Your task to perform on an android device: choose inbox layout in the gmail app Image 0: 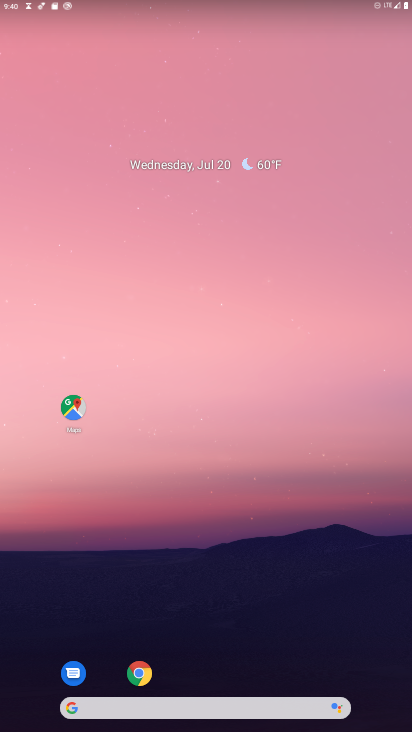
Step 0: drag from (182, 592) to (185, 328)
Your task to perform on an android device: choose inbox layout in the gmail app Image 1: 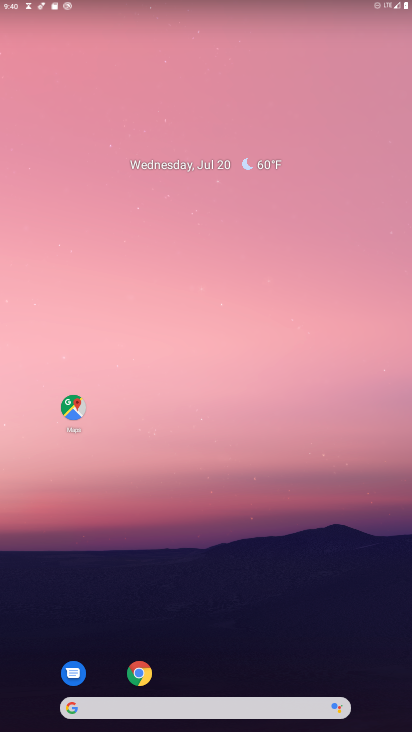
Step 1: drag from (209, 625) to (198, 127)
Your task to perform on an android device: choose inbox layout in the gmail app Image 2: 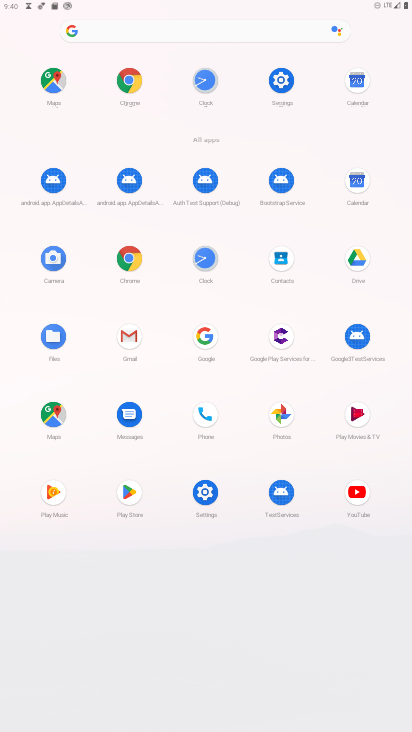
Step 2: click (130, 330)
Your task to perform on an android device: choose inbox layout in the gmail app Image 3: 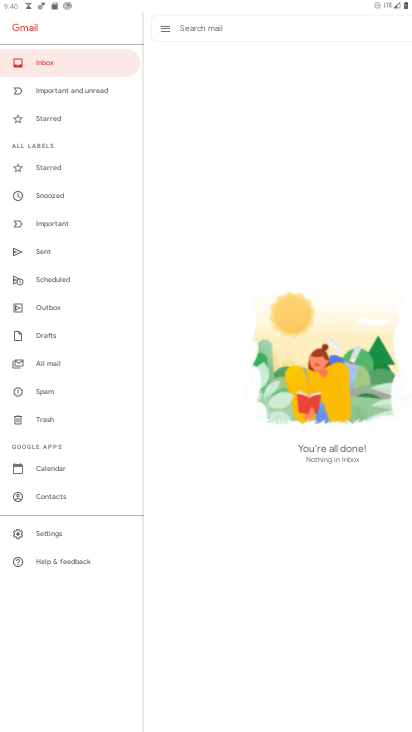
Step 3: click (44, 532)
Your task to perform on an android device: choose inbox layout in the gmail app Image 4: 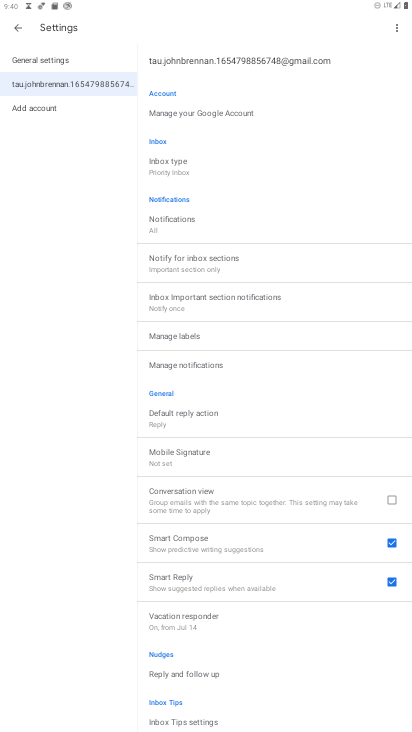
Step 4: click (179, 174)
Your task to perform on an android device: choose inbox layout in the gmail app Image 5: 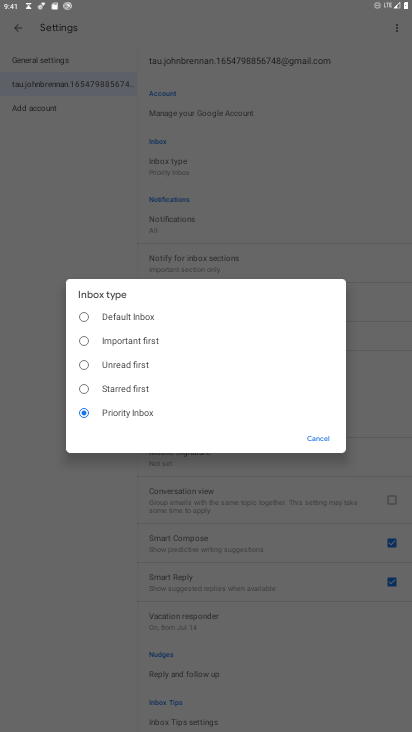
Step 5: click (87, 308)
Your task to perform on an android device: choose inbox layout in the gmail app Image 6: 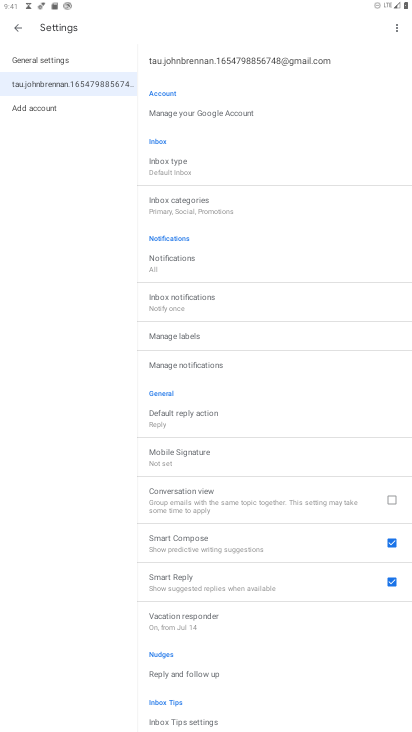
Step 6: task complete